Your task to perform on an android device: Open battery settings Image 0: 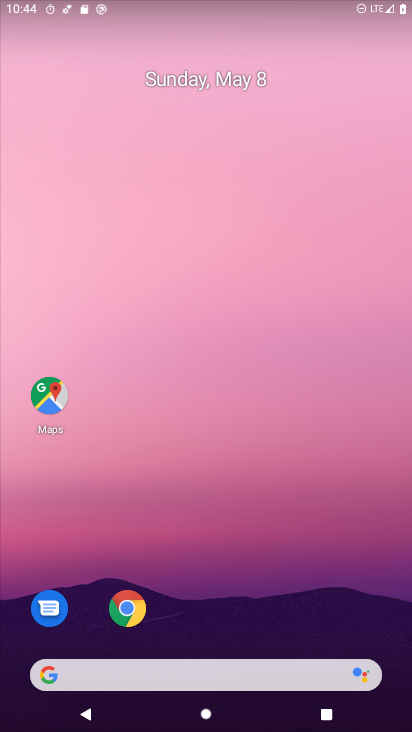
Step 0: drag from (269, 248) to (279, 201)
Your task to perform on an android device: Open battery settings Image 1: 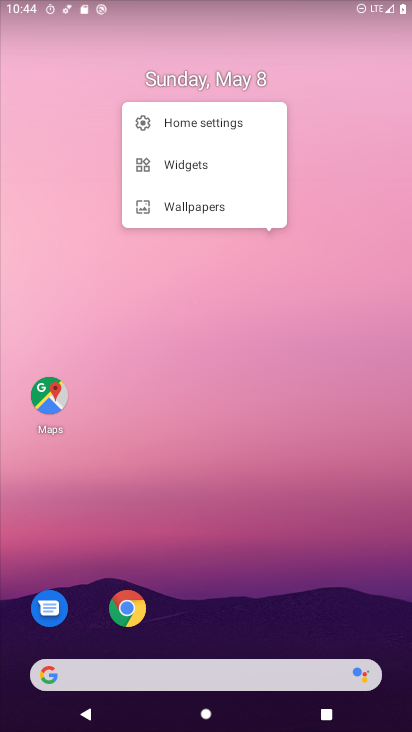
Step 1: drag from (210, 622) to (253, 105)
Your task to perform on an android device: Open battery settings Image 2: 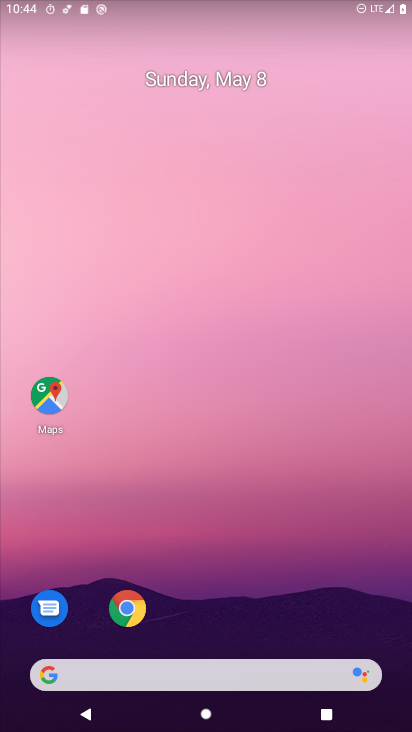
Step 2: drag from (183, 628) to (254, 58)
Your task to perform on an android device: Open battery settings Image 3: 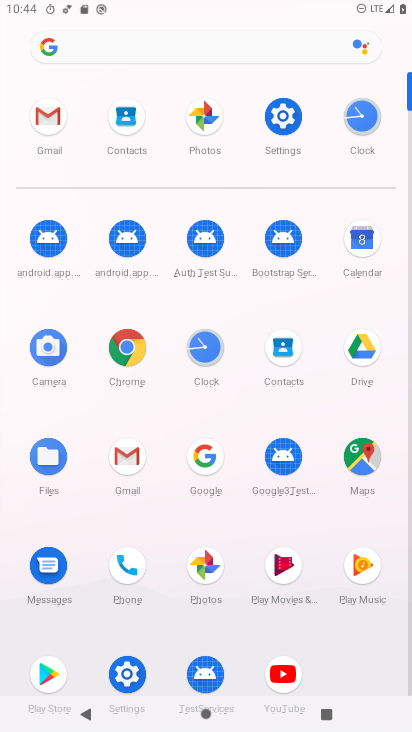
Step 3: click (279, 119)
Your task to perform on an android device: Open battery settings Image 4: 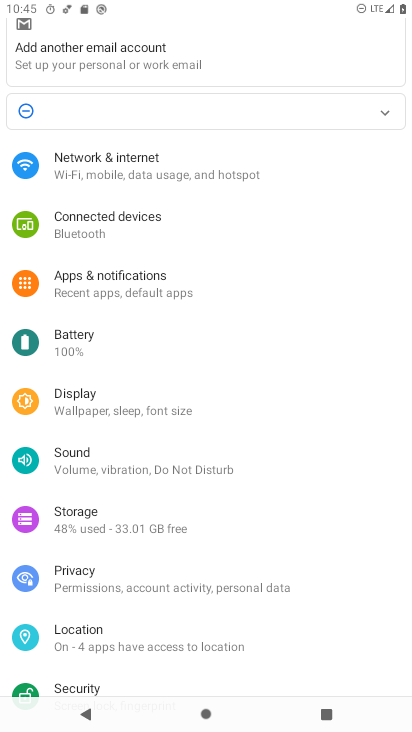
Step 4: click (130, 348)
Your task to perform on an android device: Open battery settings Image 5: 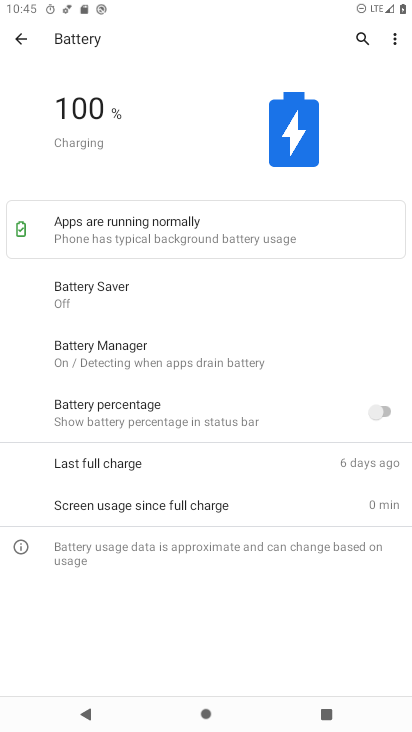
Step 5: task complete